Your task to perform on an android device: add a contact in the contacts app Image 0: 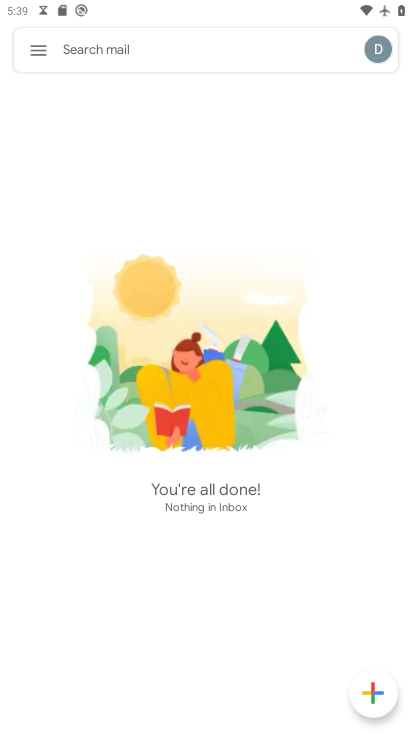
Step 0: press home button
Your task to perform on an android device: add a contact in the contacts app Image 1: 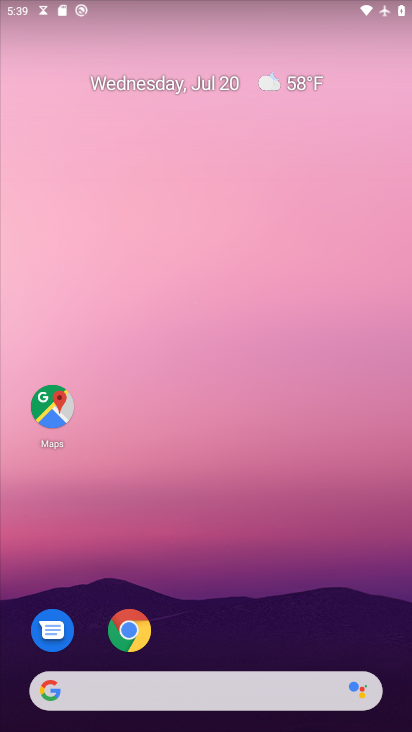
Step 1: drag from (268, 624) to (271, 9)
Your task to perform on an android device: add a contact in the contacts app Image 2: 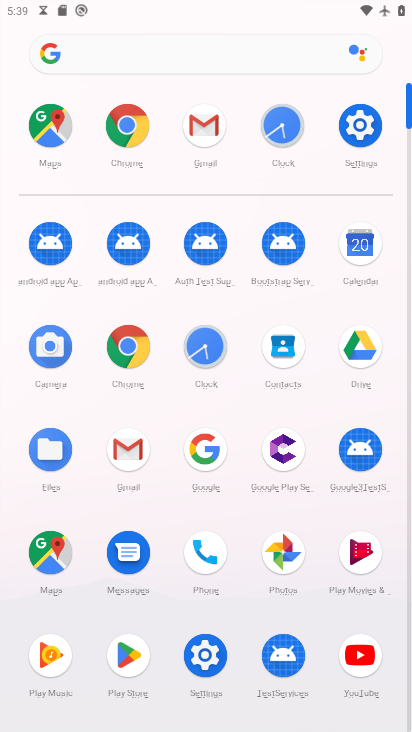
Step 2: click (282, 357)
Your task to perform on an android device: add a contact in the contacts app Image 3: 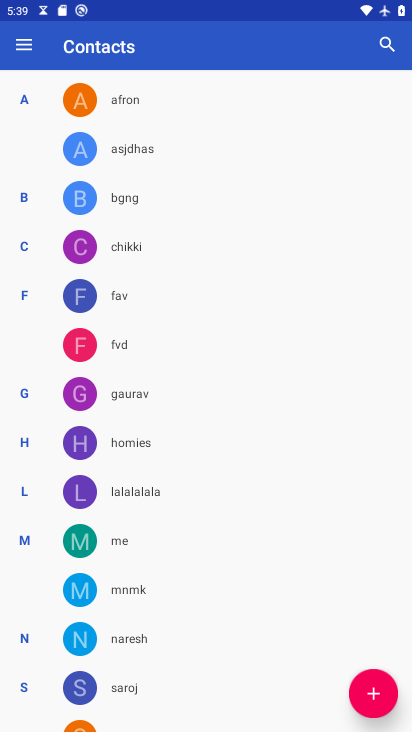
Step 3: click (361, 692)
Your task to perform on an android device: add a contact in the contacts app Image 4: 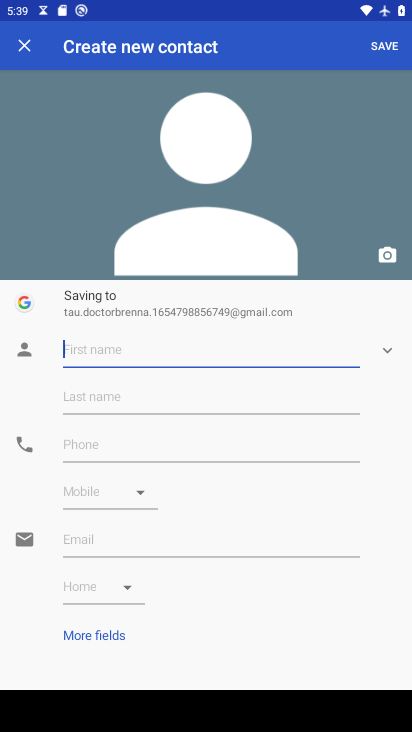
Step 4: type "gjjgjjj"
Your task to perform on an android device: add a contact in the contacts app Image 5: 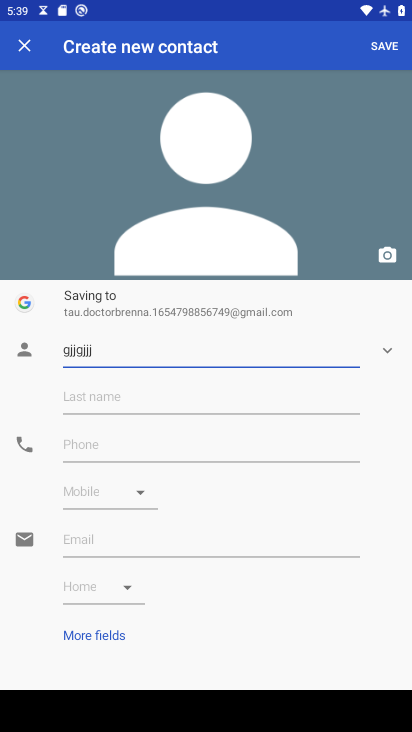
Step 5: click (130, 457)
Your task to perform on an android device: add a contact in the contacts app Image 6: 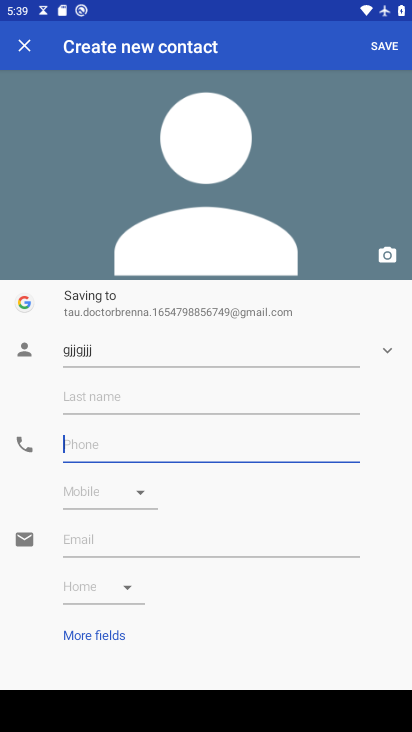
Step 6: type "78787"
Your task to perform on an android device: add a contact in the contacts app Image 7: 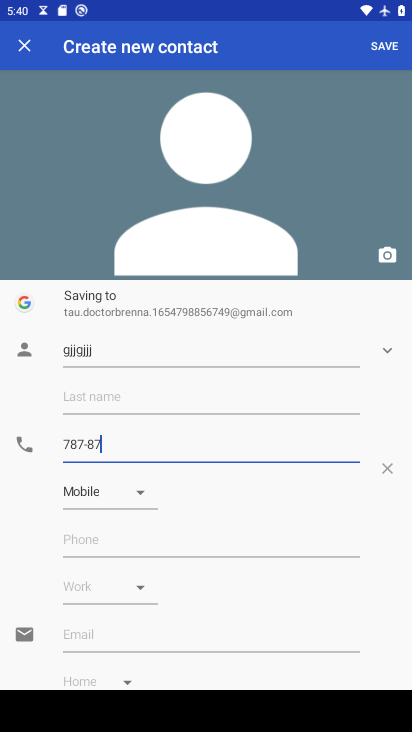
Step 7: click (390, 47)
Your task to perform on an android device: add a contact in the contacts app Image 8: 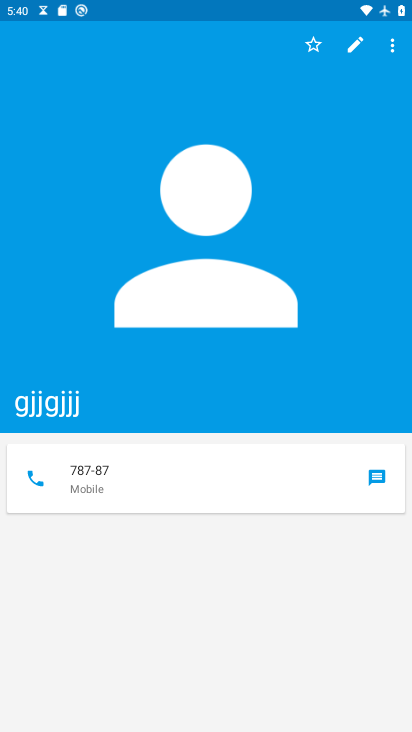
Step 8: task complete